Your task to perform on an android device: turn off sleep mode Image 0: 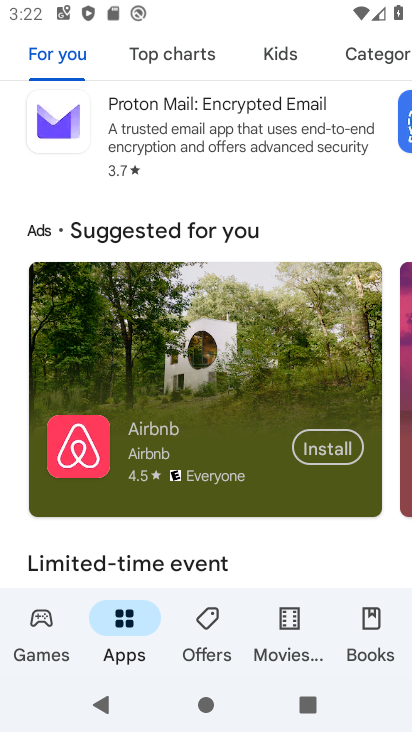
Step 0: press home button
Your task to perform on an android device: turn off sleep mode Image 1: 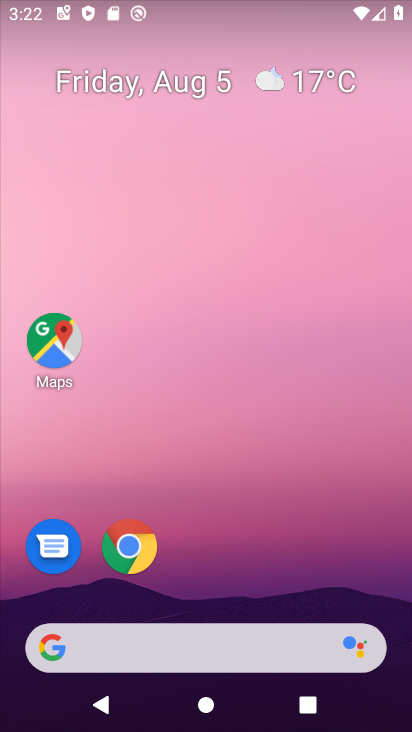
Step 1: drag from (262, 566) to (280, 163)
Your task to perform on an android device: turn off sleep mode Image 2: 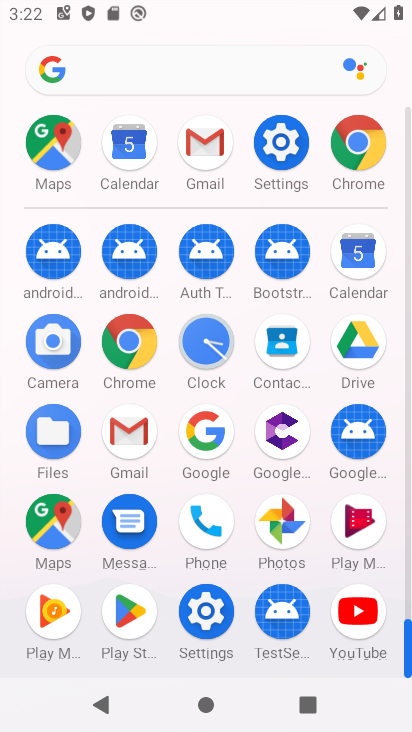
Step 2: click (280, 144)
Your task to perform on an android device: turn off sleep mode Image 3: 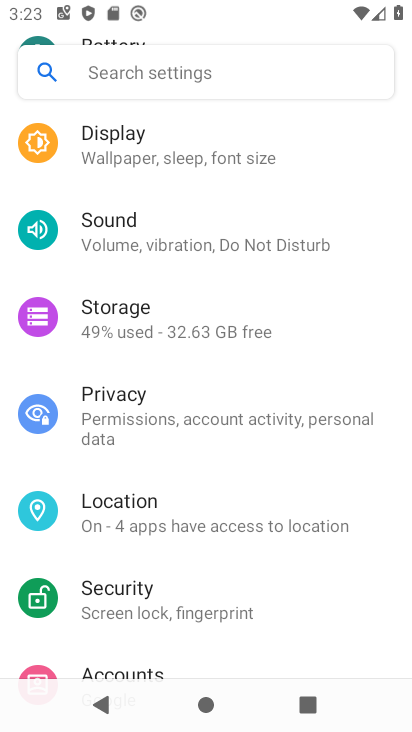
Step 3: drag from (359, 223) to (360, 362)
Your task to perform on an android device: turn off sleep mode Image 4: 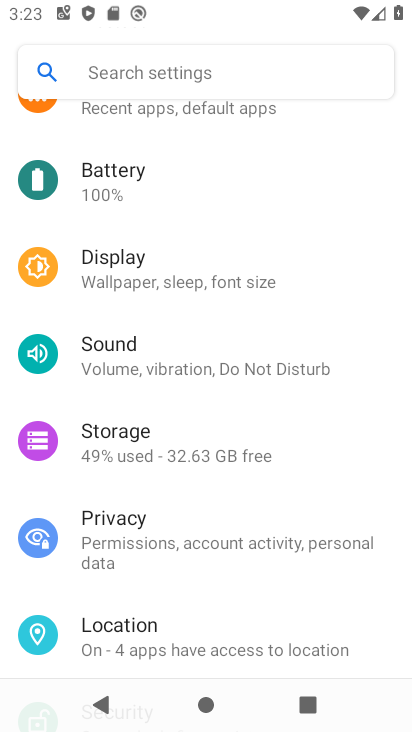
Step 4: drag from (357, 247) to (357, 380)
Your task to perform on an android device: turn off sleep mode Image 5: 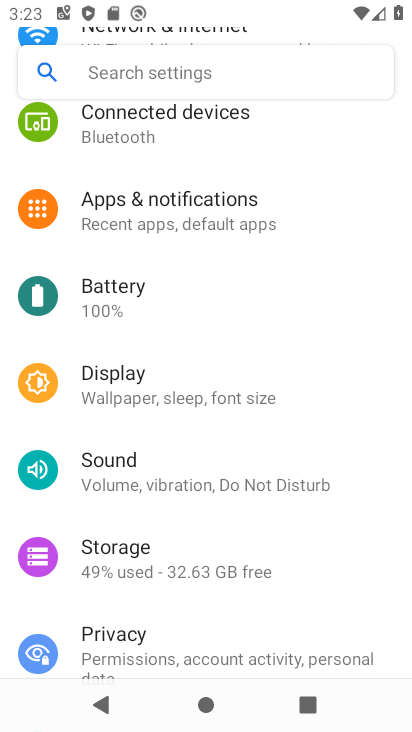
Step 5: drag from (358, 200) to (359, 398)
Your task to perform on an android device: turn off sleep mode Image 6: 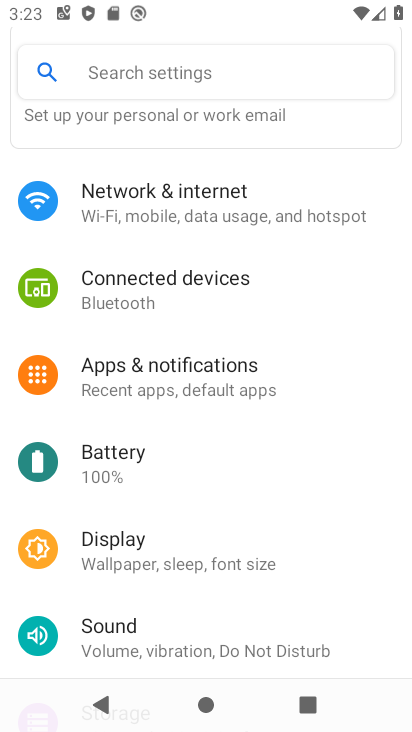
Step 6: drag from (346, 248) to (350, 393)
Your task to perform on an android device: turn off sleep mode Image 7: 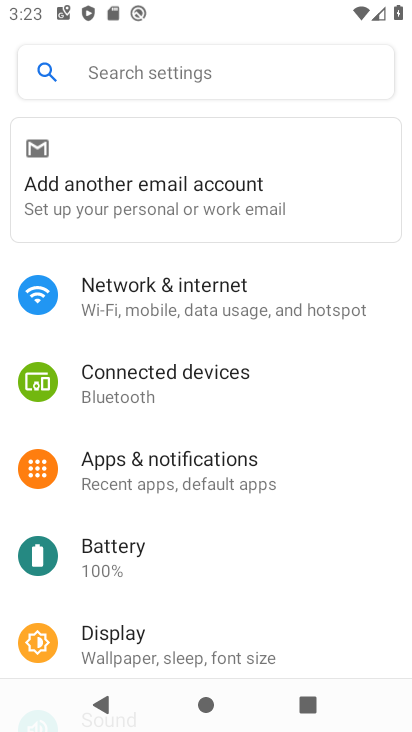
Step 7: drag from (369, 259) to (368, 453)
Your task to perform on an android device: turn off sleep mode Image 8: 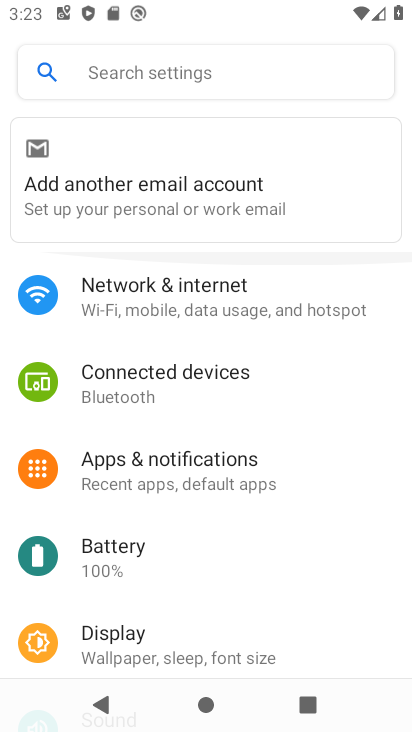
Step 8: drag from (360, 458) to (364, 287)
Your task to perform on an android device: turn off sleep mode Image 9: 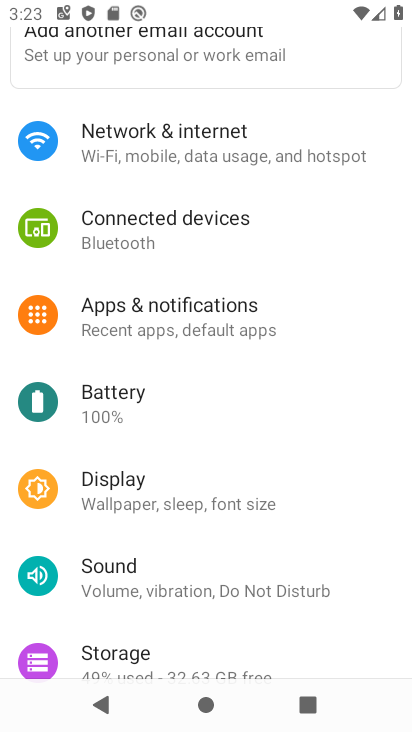
Step 9: drag from (356, 483) to (355, 264)
Your task to perform on an android device: turn off sleep mode Image 10: 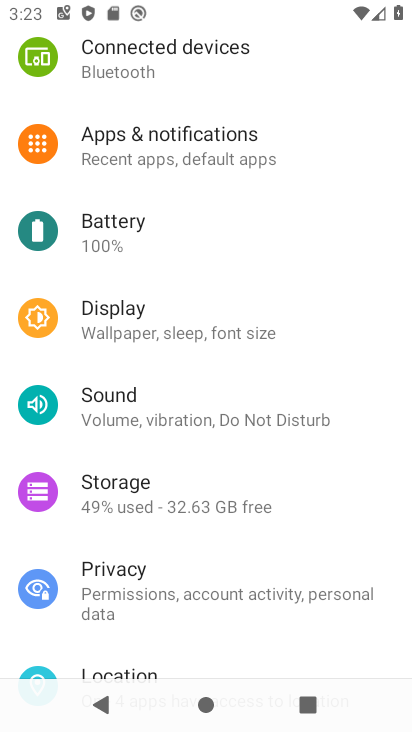
Step 10: drag from (340, 486) to (359, 335)
Your task to perform on an android device: turn off sleep mode Image 11: 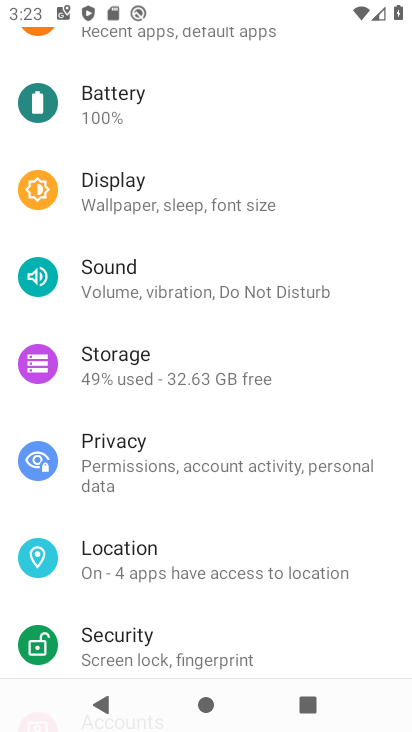
Step 11: drag from (341, 517) to (352, 329)
Your task to perform on an android device: turn off sleep mode Image 12: 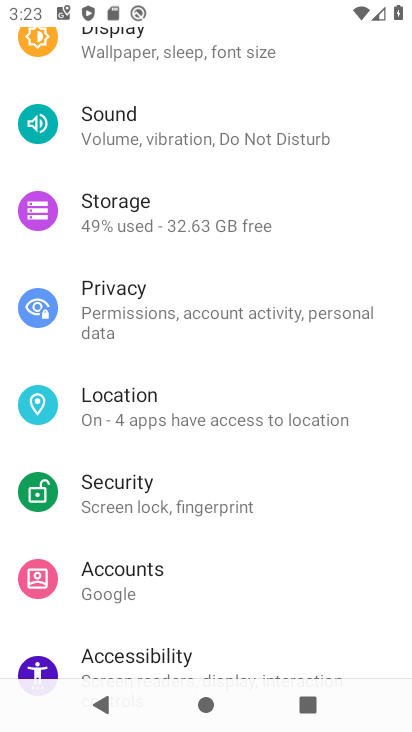
Step 12: drag from (353, 495) to (355, 373)
Your task to perform on an android device: turn off sleep mode Image 13: 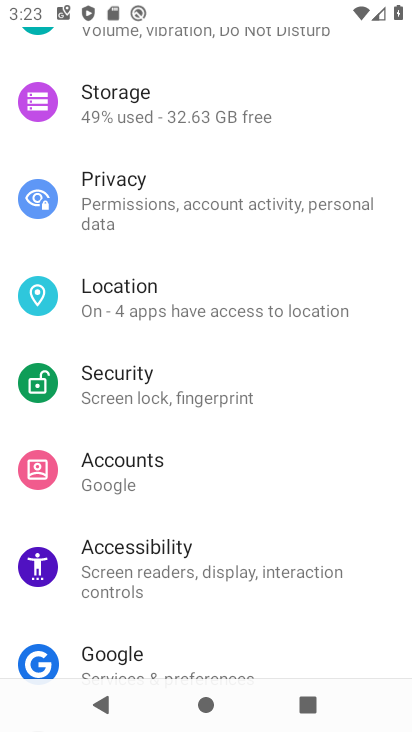
Step 13: drag from (339, 515) to (336, 375)
Your task to perform on an android device: turn off sleep mode Image 14: 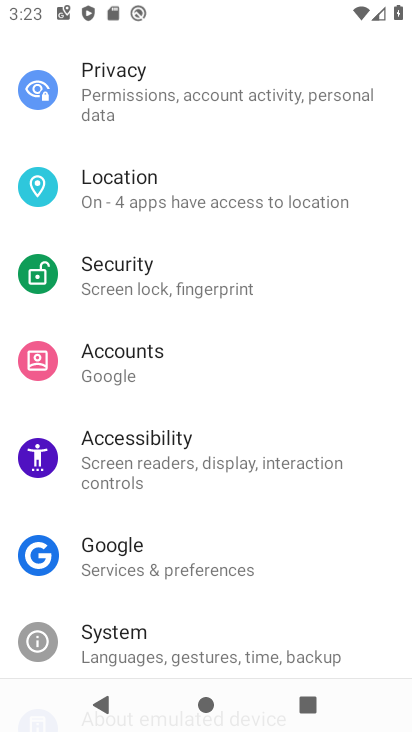
Step 14: drag from (314, 536) to (330, 406)
Your task to perform on an android device: turn off sleep mode Image 15: 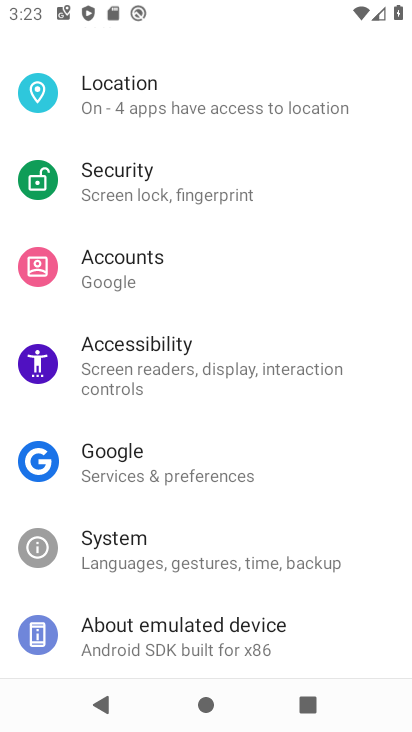
Step 15: drag from (328, 540) to (334, 429)
Your task to perform on an android device: turn off sleep mode Image 16: 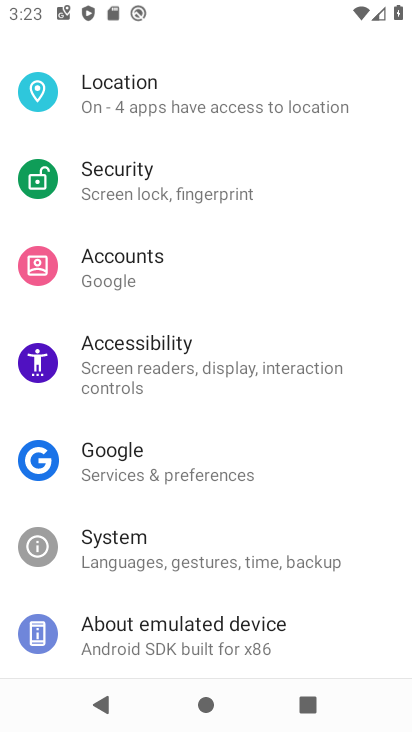
Step 16: drag from (334, 243) to (325, 430)
Your task to perform on an android device: turn off sleep mode Image 17: 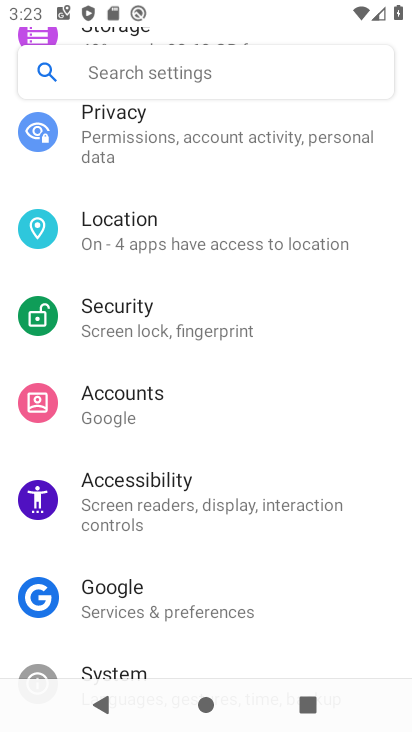
Step 17: drag from (339, 285) to (341, 447)
Your task to perform on an android device: turn off sleep mode Image 18: 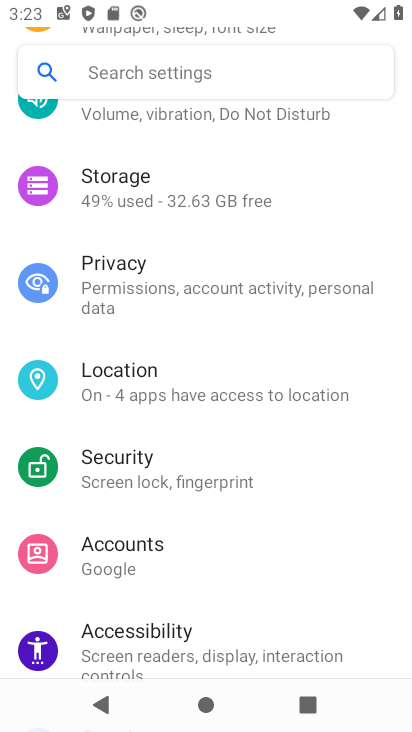
Step 18: drag from (330, 191) to (331, 406)
Your task to perform on an android device: turn off sleep mode Image 19: 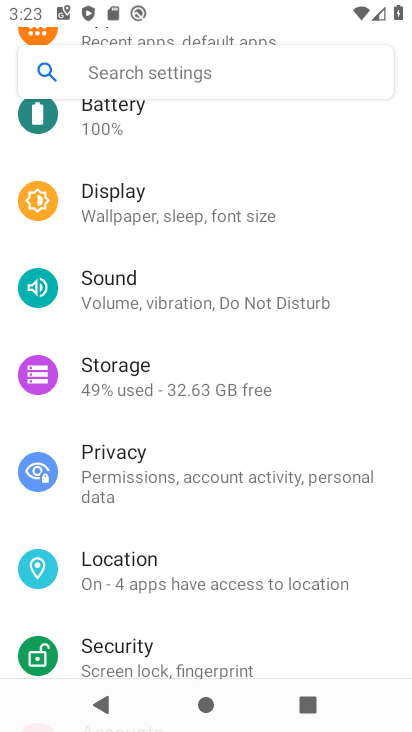
Step 19: drag from (337, 195) to (337, 440)
Your task to perform on an android device: turn off sleep mode Image 20: 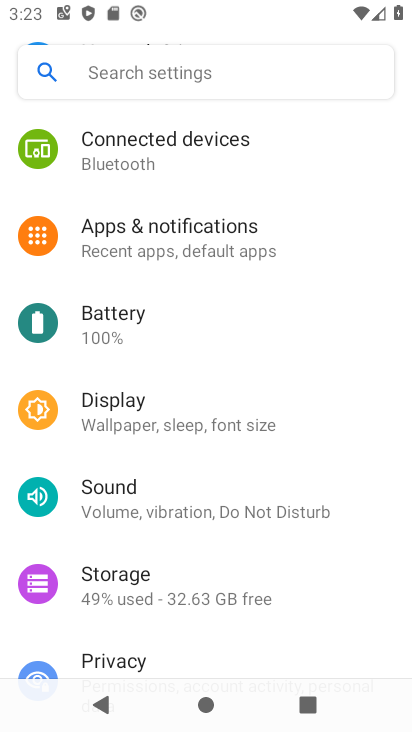
Step 20: click (157, 416)
Your task to perform on an android device: turn off sleep mode Image 21: 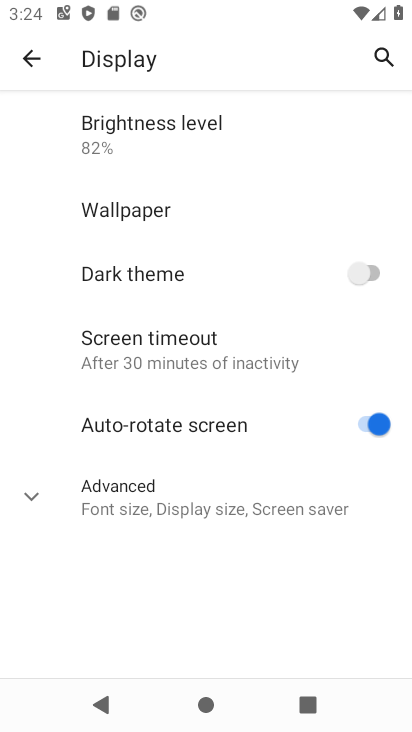
Step 21: click (222, 508)
Your task to perform on an android device: turn off sleep mode Image 22: 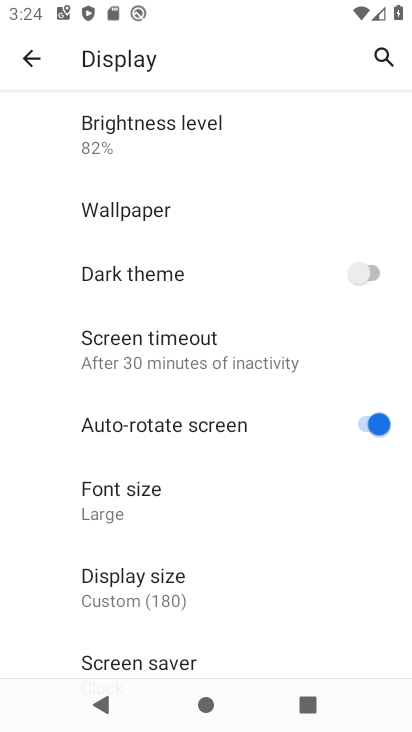
Step 22: task complete